Your task to perform on an android device: Go to Android settings Image 0: 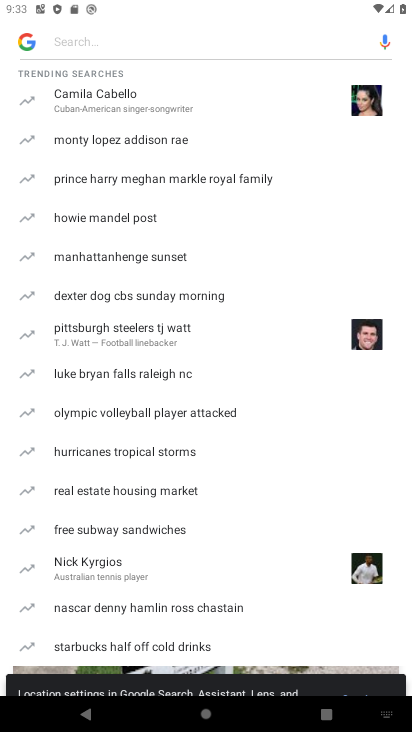
Step 0: press back button
Your task to perform on an android device: Go to Android settings Image 1: 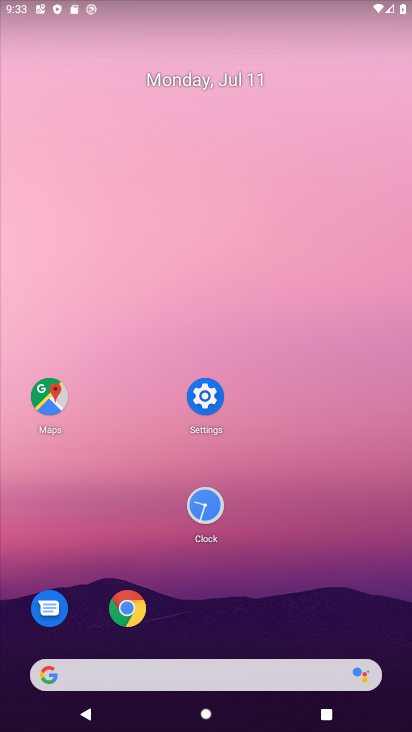
Step 1: click (212, 395)
Your task to perform on an android device: Go to Android settings Image 2: 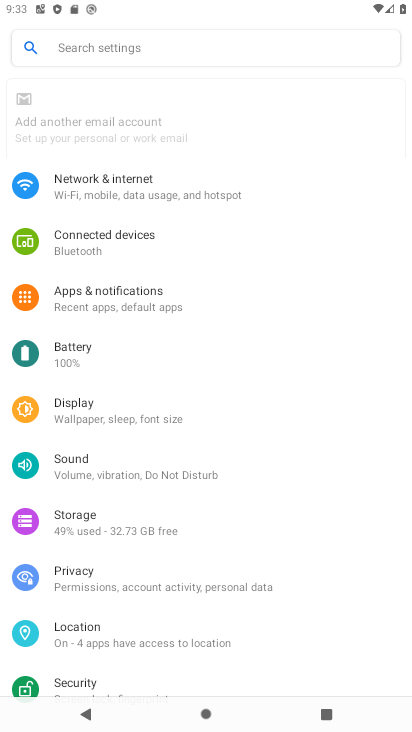
Step 2: task complete